Your task to perform on an android device: Open Youtube and go to the subscriptions tab Image 0: 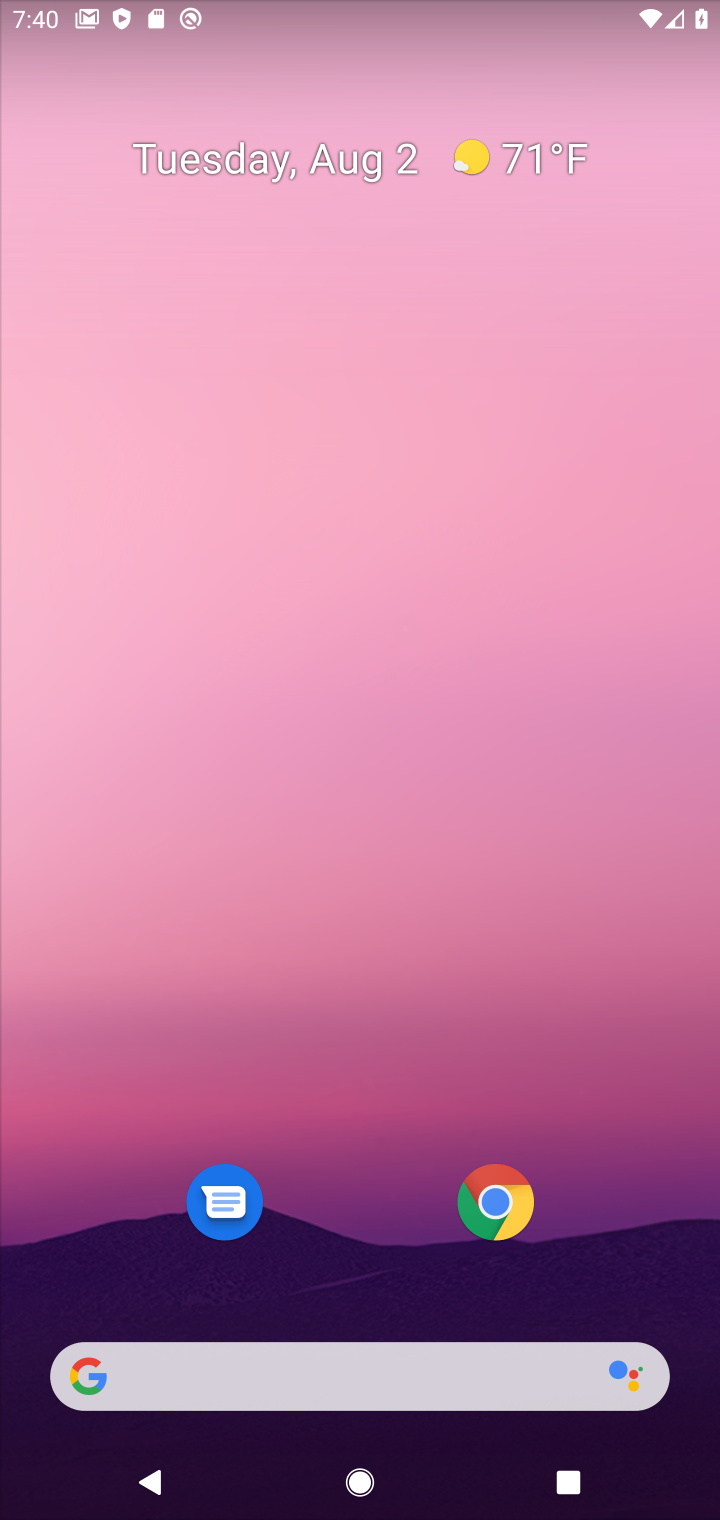
Step 0: drag from (360, 1286) to (316, 38)
Your task to perform on an android device: Open Youtube and go to the subscriptions tab Image 1: 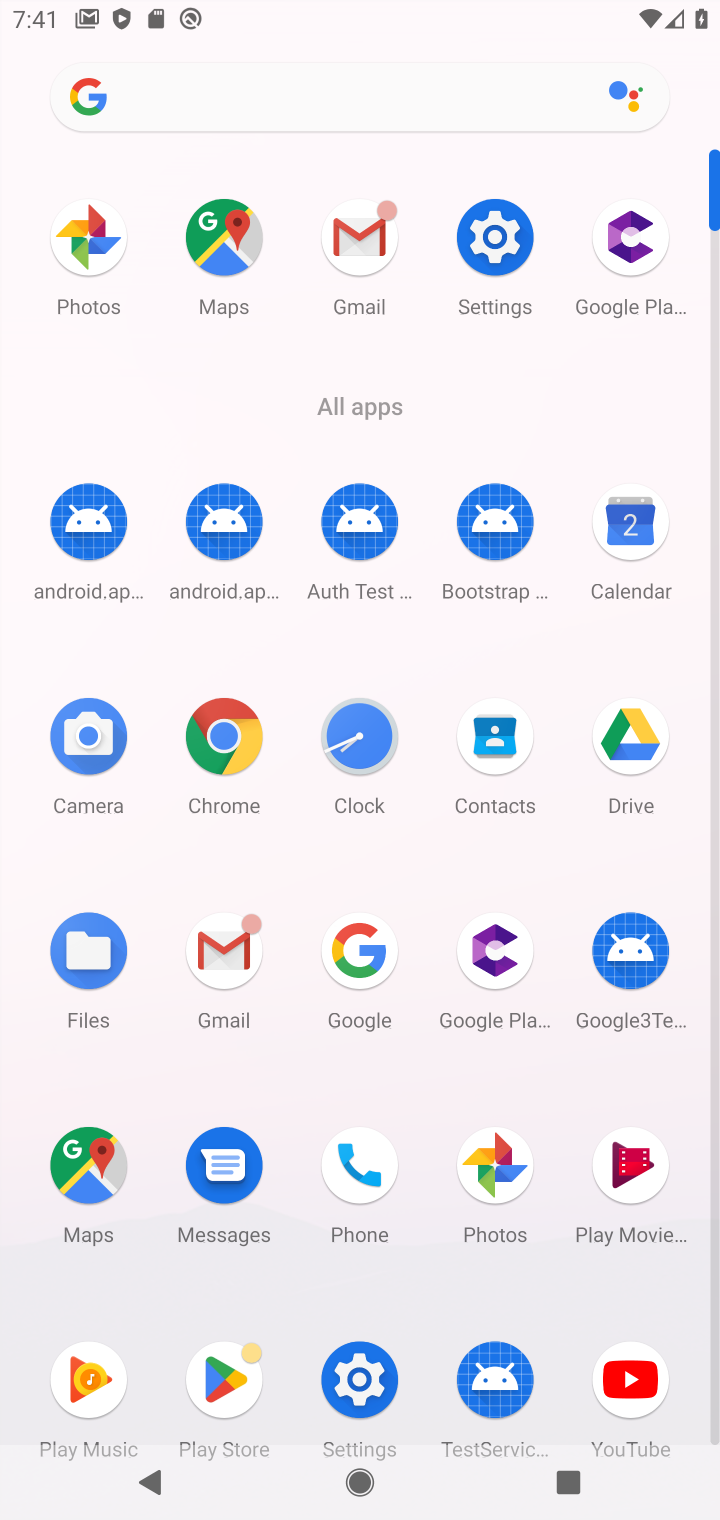
Step 1: click (634, 1391)
Your task to perform on an android device: Open Youtube and go to the subscriptions tab Image 2: 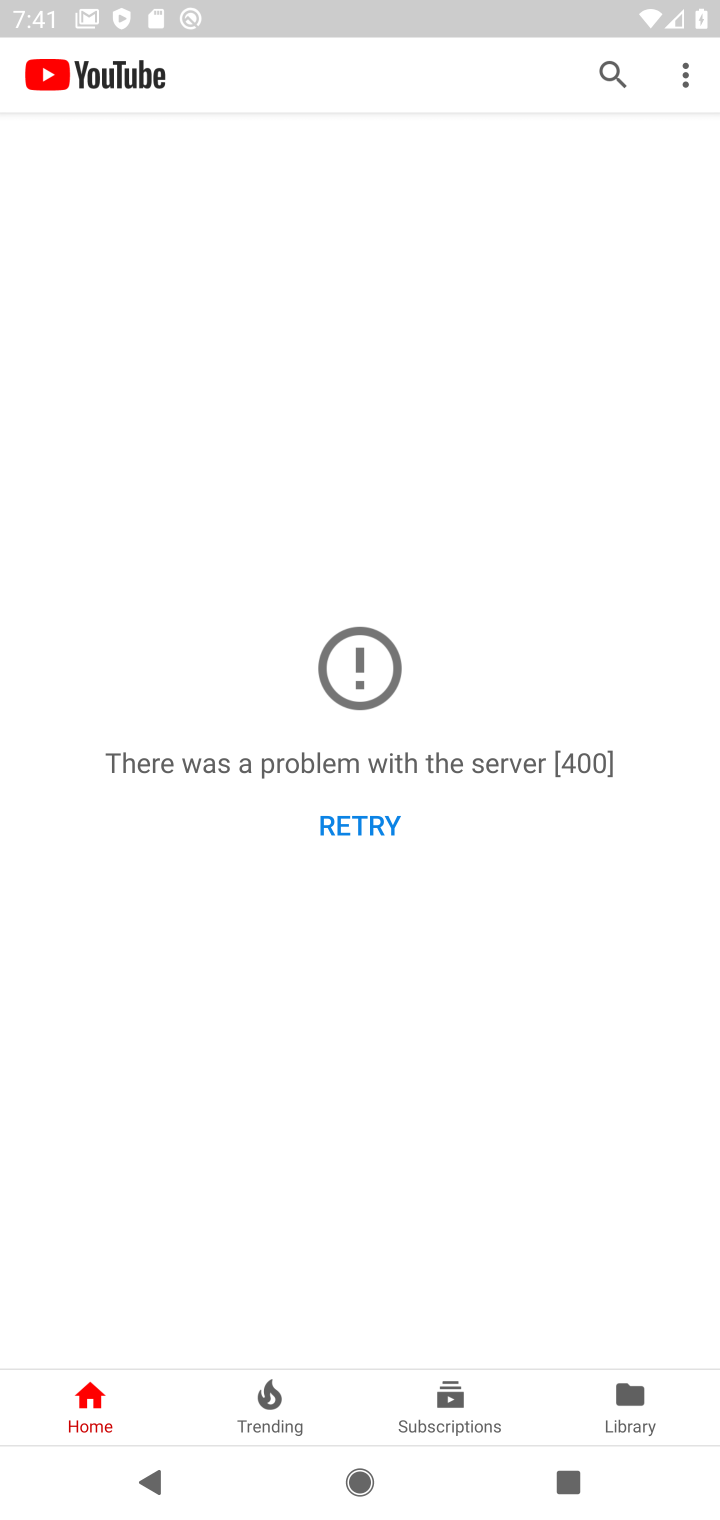
Step 2: click (452, 1407)
Your task to perform on an android device: Open Youtube and go to the subscriptions tab Image 3: 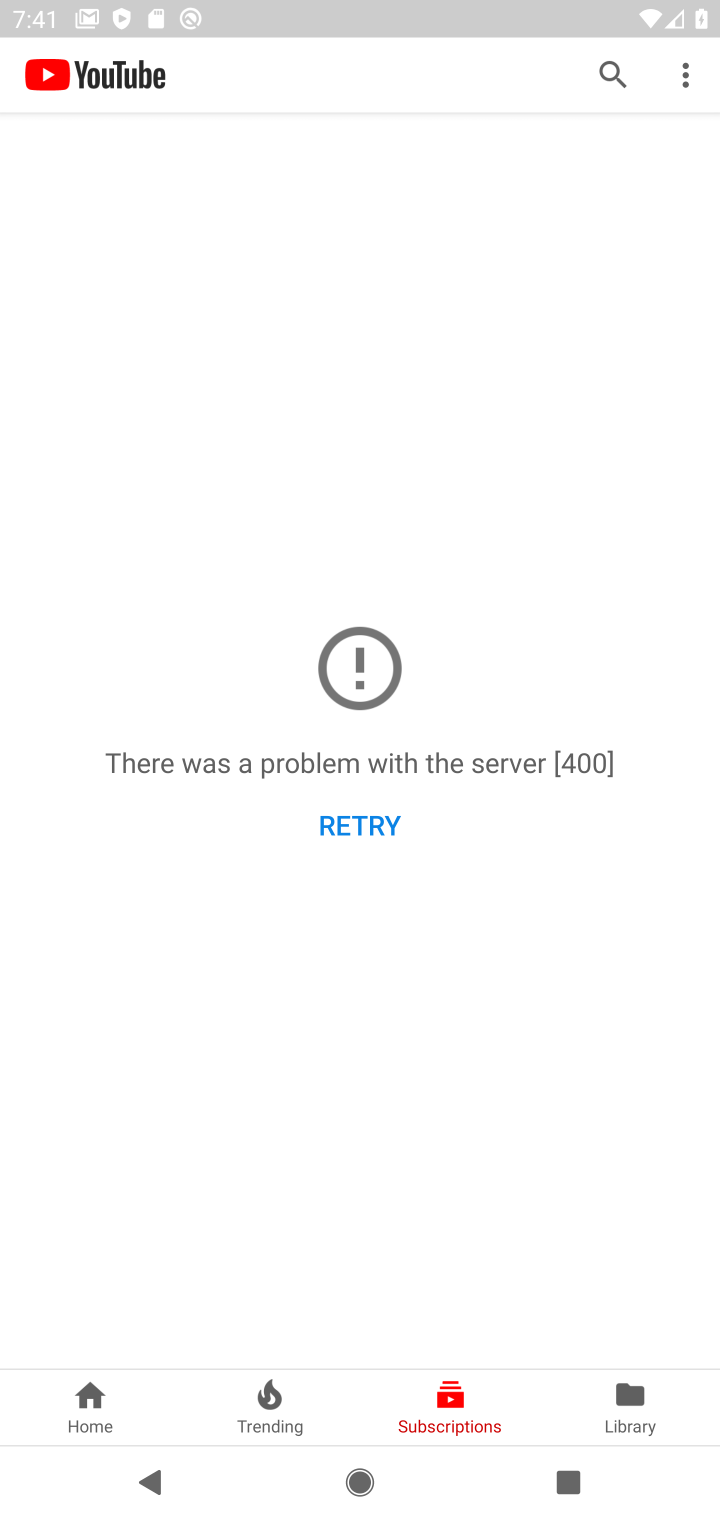
Step 3: task complete